Your task to perform on an android device: change the clock display to analog Image 0: 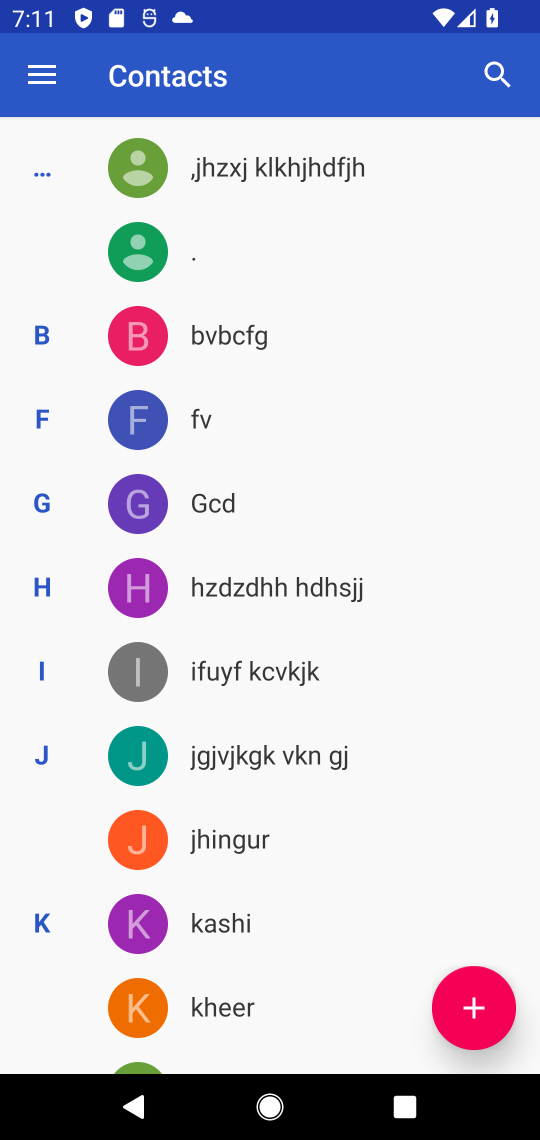
Step 0: press home button
Your task to perform on an android device: change the clock display to analog Image 1: 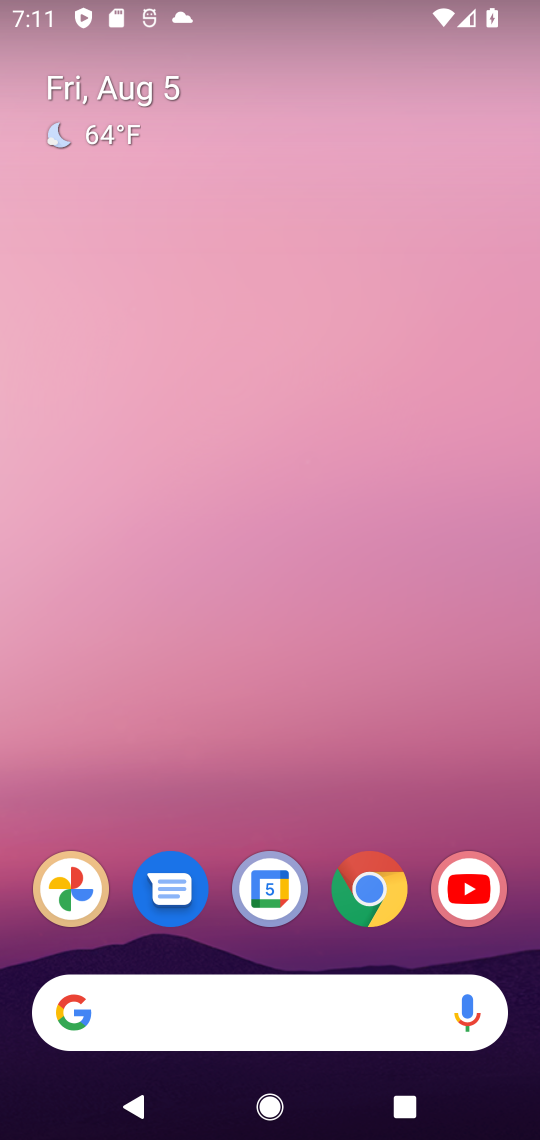
Step 1: drag from (291, 990) to (280, 599)
Your task to perform on an android device: change the clock display to analog Image 2: 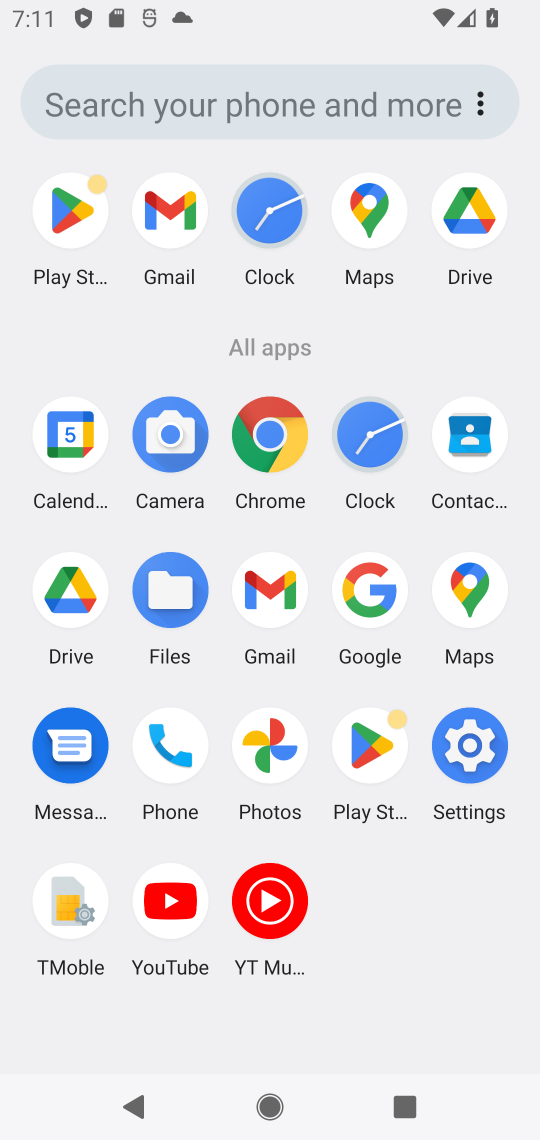
Step 2: click (352, 454)
Your task to perform on an android device: change the clock display to analog Image 3: 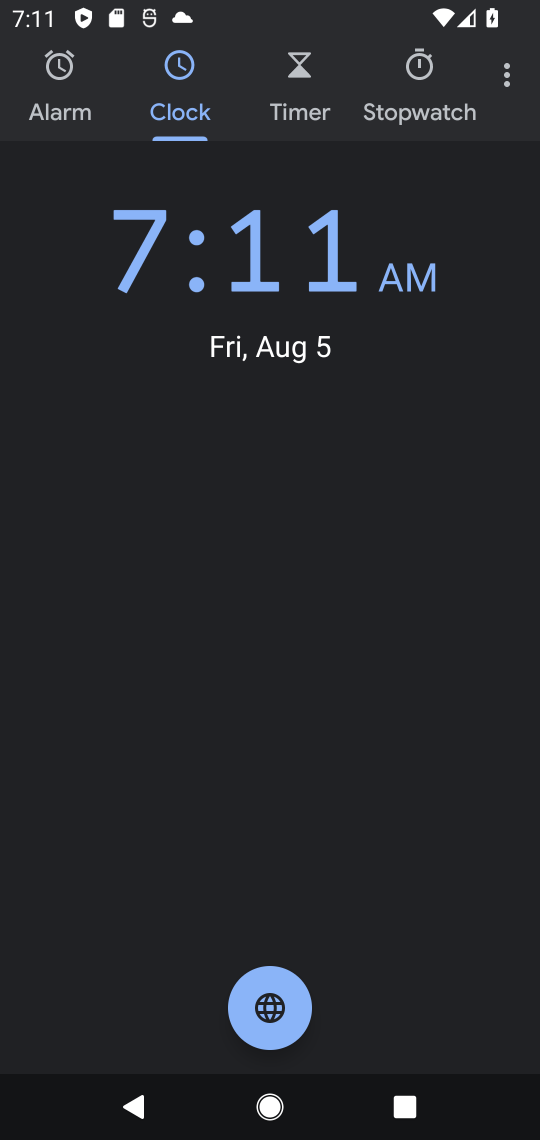
Step 3: click (498, 80)
Your task to perform on an android device: change the clock display to analog Image 4: 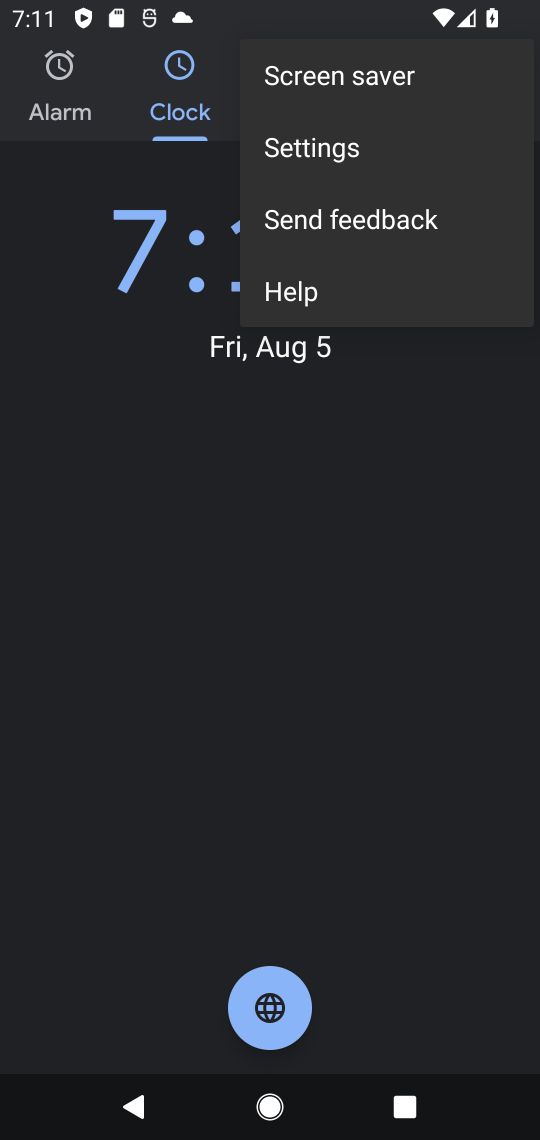
Step 4: click (354, 149)
Your task to perform on an android device: change the clock display to analog Image 5: 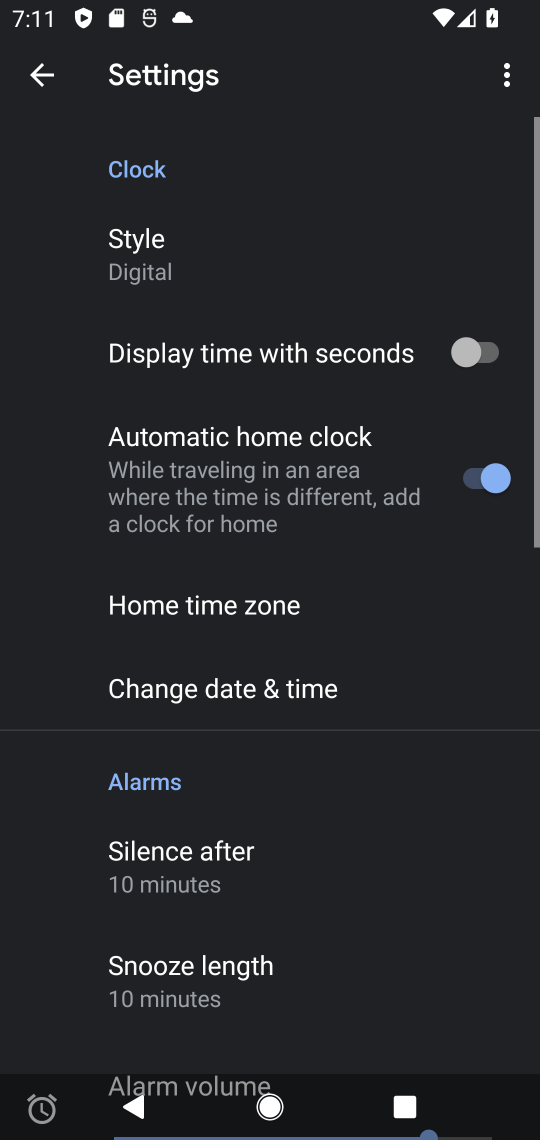
Step 5: click (126, 260)
Your task to perform on an android device: change the clock display to analog Image 6: 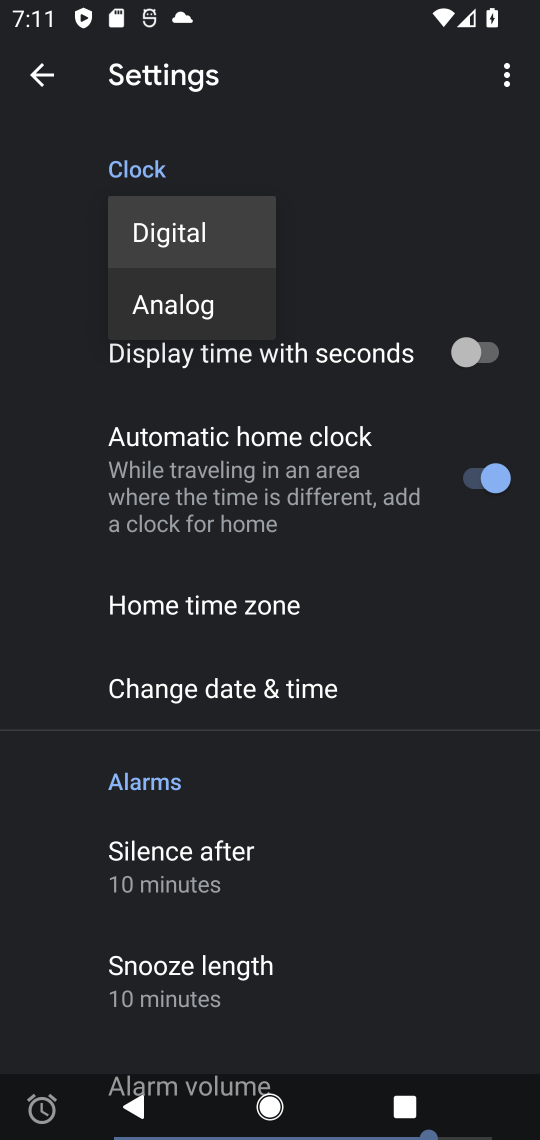
Step 6: click (182, 324)
Your task to perform on an android device: change the clock display to analog Image 7: 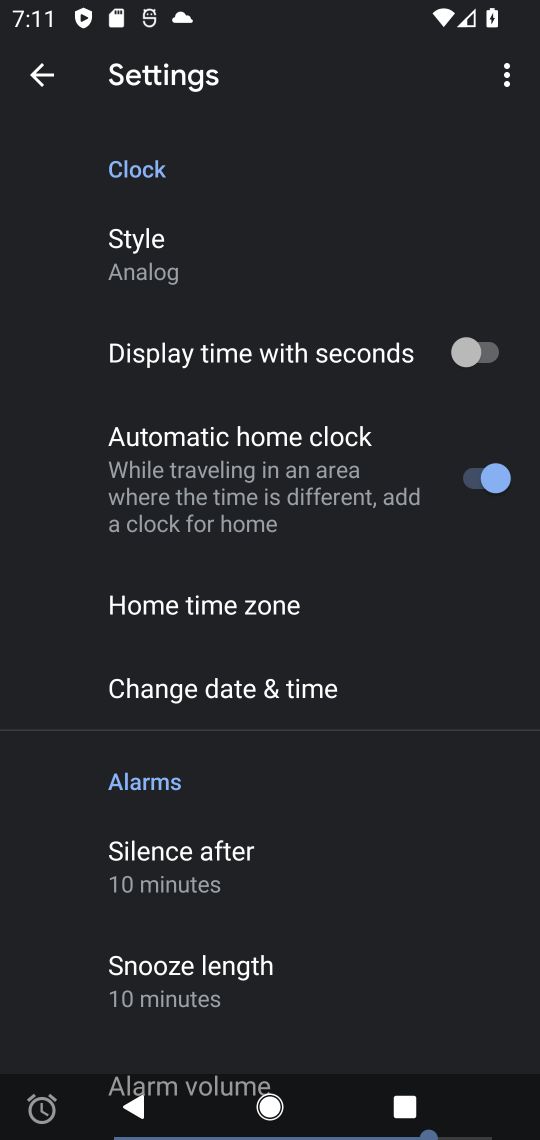
Step 7: task complete